Your task to perform on an android device: Go to Maps Image 0: 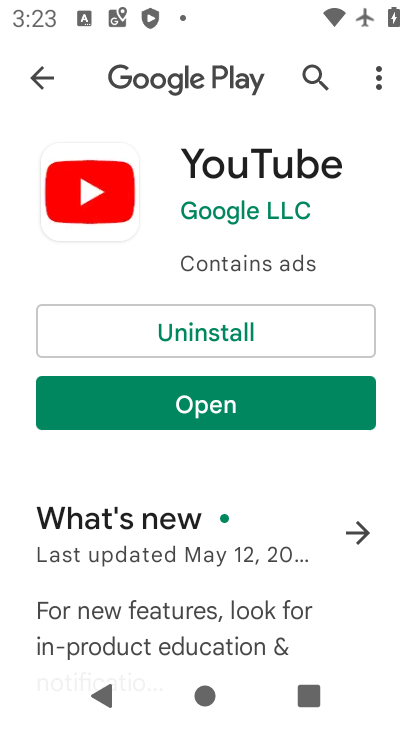
Step 0: press home button
Your task to perform on an android device: Go to Maps Image 1: 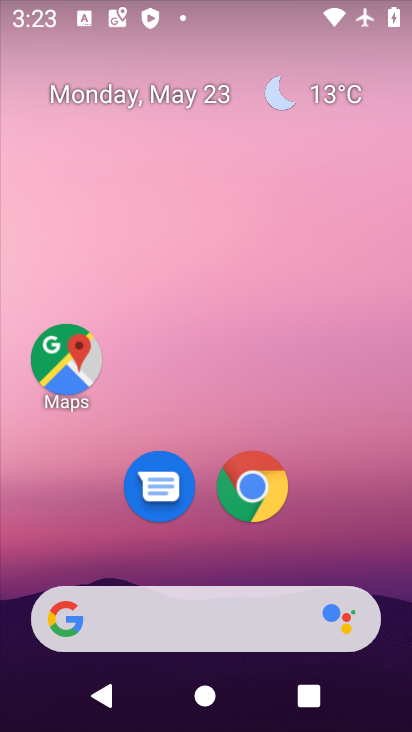
Step 1: click (66, 359)
Your task to perform on an android device: Go to Maps Image 2: 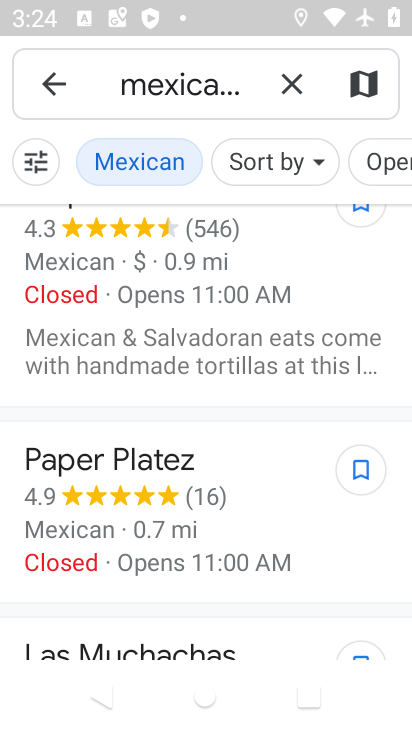
Step 2: click (296, 82)
Your task to perform on an android device: Go to Maps Image 3: 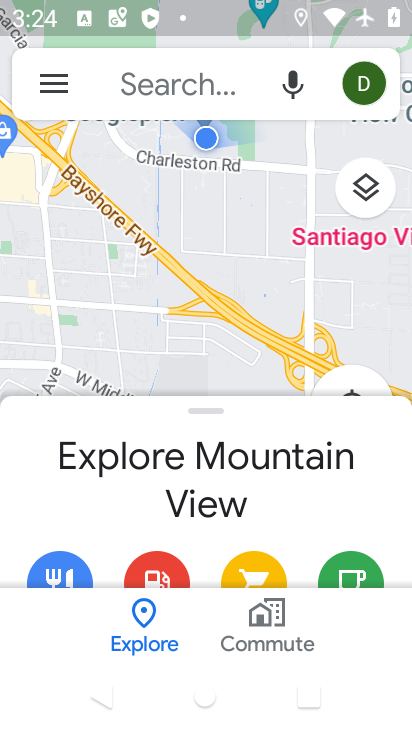
Step 3: task complete